Your task to perform on an android device: stop showing notifications on the lock screen Image 0: 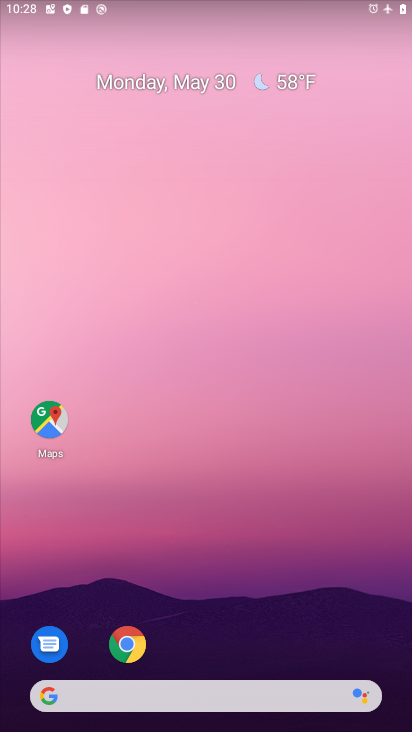
Step 0: drag from (366, 654) to (295, 254)
Your task to perform on an android device: stop showing notifications on the lock screen Image 1: 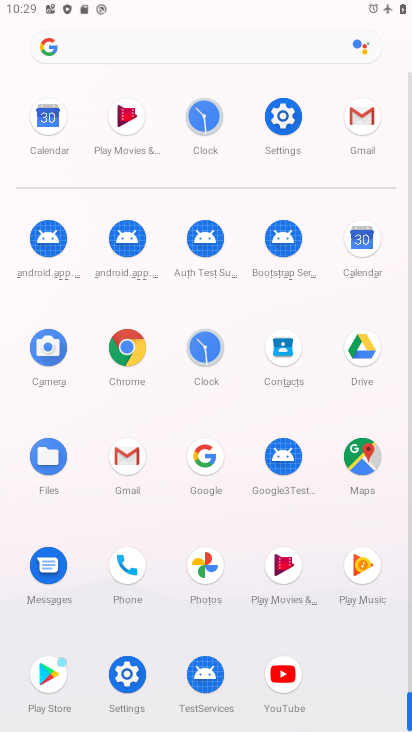
Step 1: click (123, 674)
Your task to perform on an android device: stop showing notifications on the lock screen Image 2: 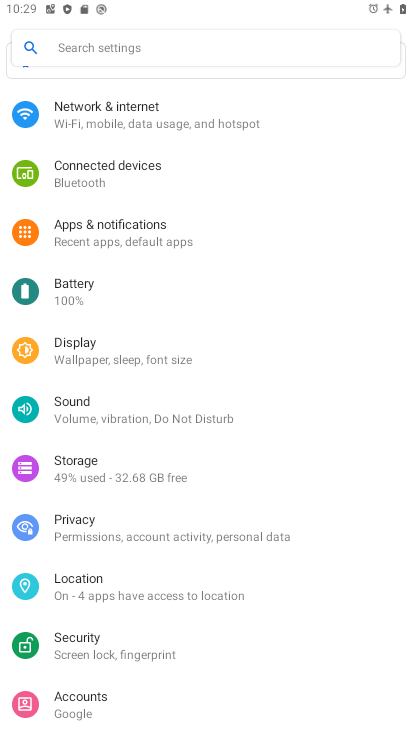
Step 2: click (116, 228)
Your task to perform on an android device: stop showing notifications on the lock screen Image 3: 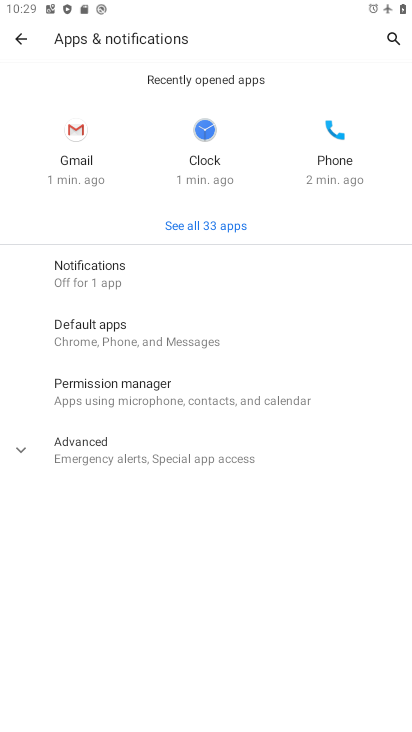
Step 3: click (97, 276)
Your task to perform on an android device: stop showing notifications on the lock screen Image 4: 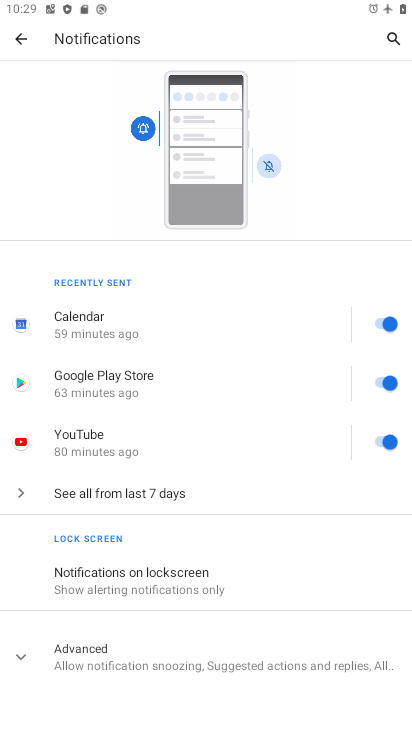
Step 4: click (131, 565)
Your task to perform on an android device: stop showing notifications on the lock screen Image 5: 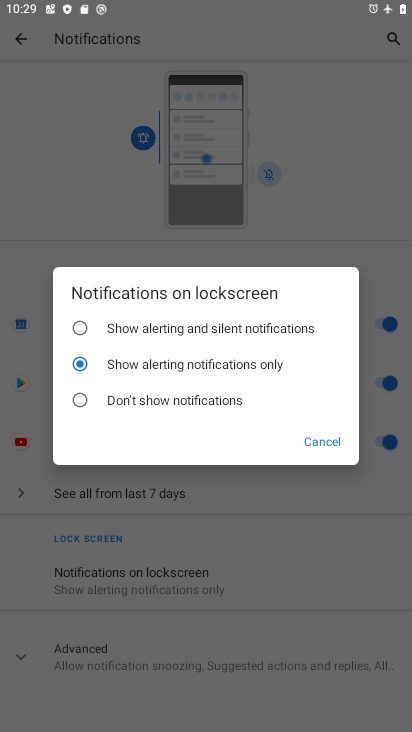
Step 5: click (83, 400)
Your task to perform on an android device: stop showing notifications on the lock screen Image 6: 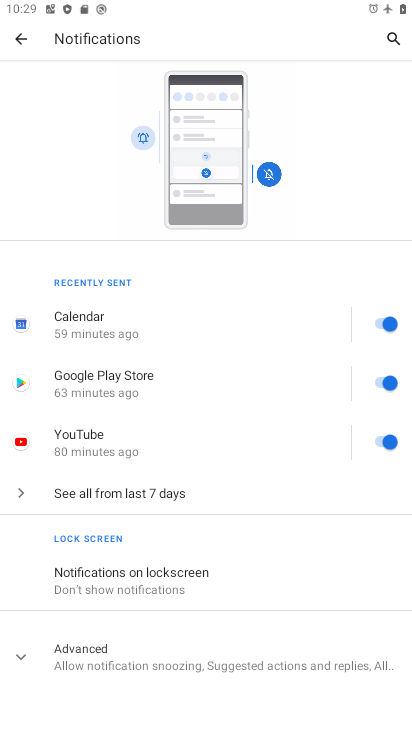
Step 6: task complete